Your task to perform on an android device: Go to wifi settings Image 0: 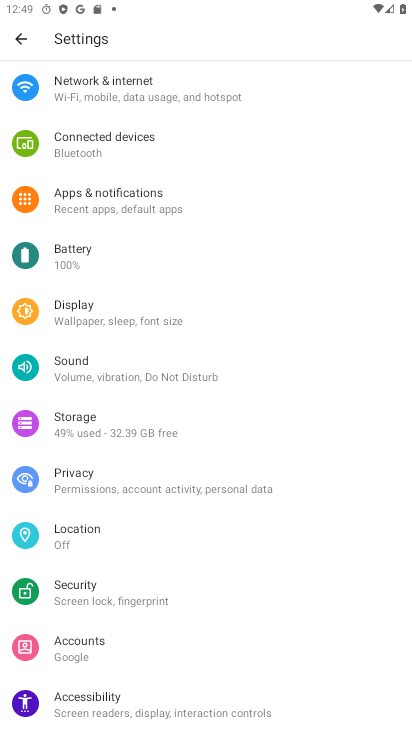
Step 0: click (135, 96)
Your task to perform on an android device: Go to wifi settings Image 1: 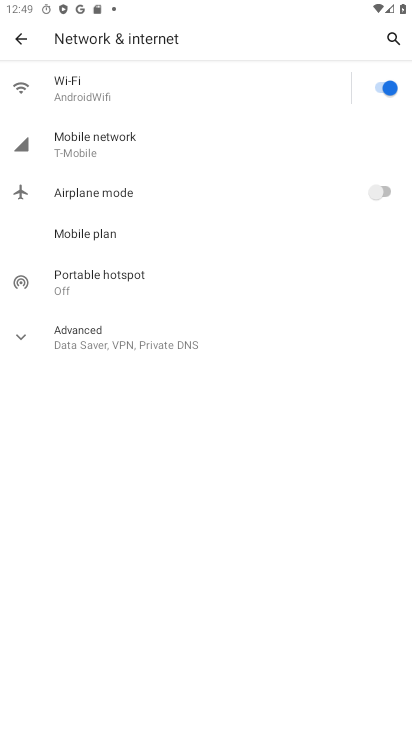
Step 1: drag from (210, 449) to (218, 144)
Your task to perform on an android device: Go to wifi settings Image 2: 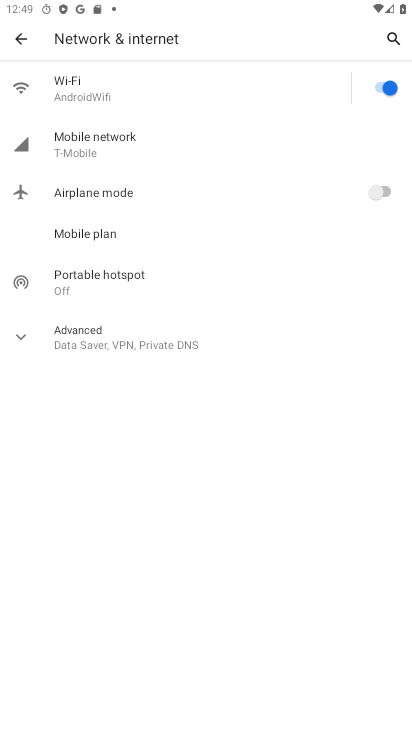
Step 2: click (158, 87)
Your task to perform on an android device: Go to wifi settings Image 3: 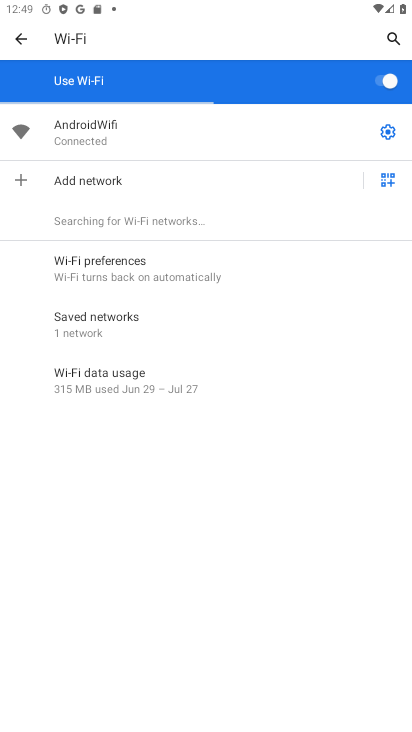
Step 3: drag from (213, 467) to (292, 203)
Your task to perform on an android device: Go to wifi settings Image 4: 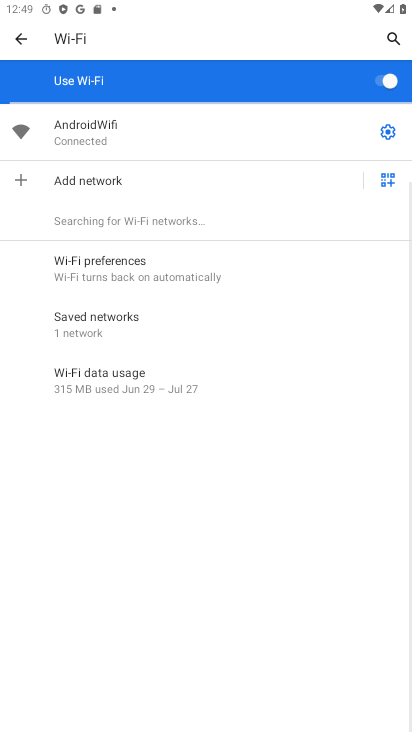
Step 4: click (384, 135)
Your task to perform on an android device: Go to wifi settings Image 5: 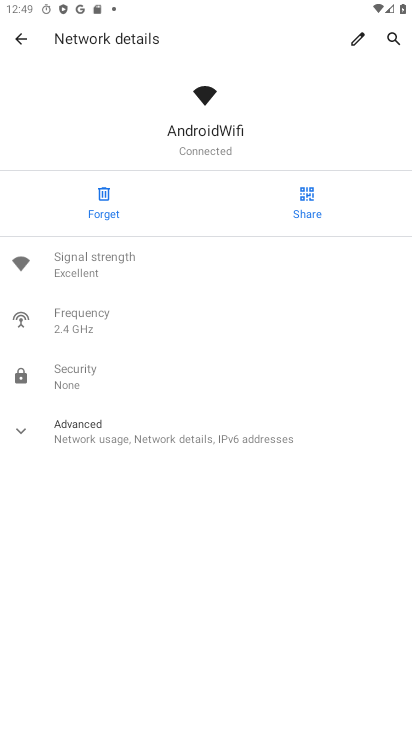
Step 5: task complete